Your task to perform on an android device: Open privacy settings Image 0: 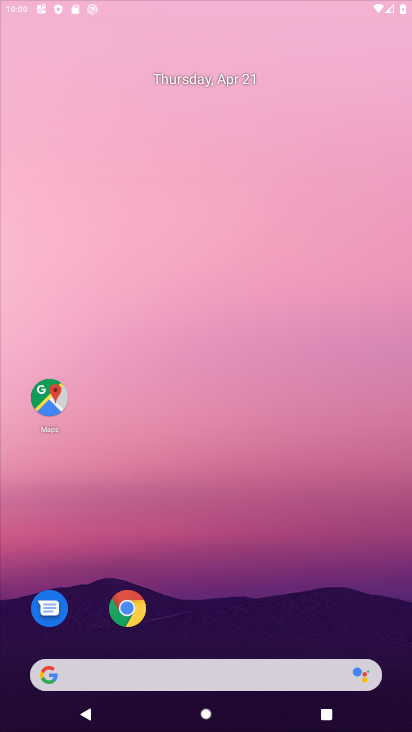
Step 0: click (133, 617)
Your task to perform on an android device: Open privacy settings Image 1: 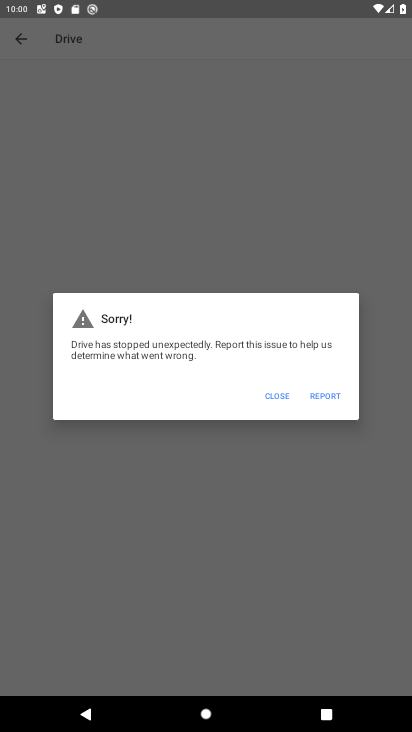
Step 1: press home button
Your task to perform on an android device: Open privacy settings Image 2: 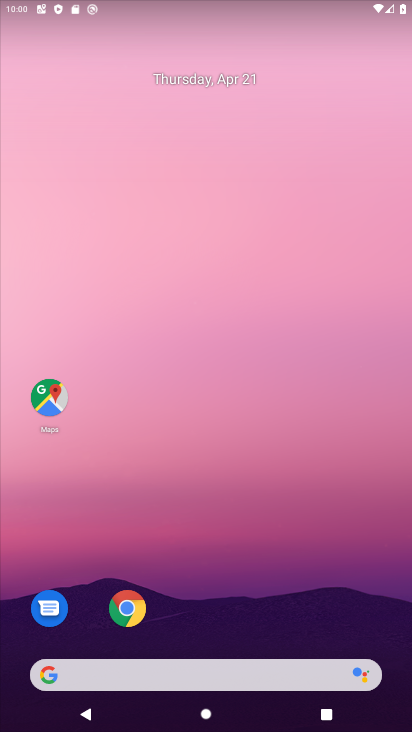
Step 2: drag from (239, 610) to (344, 156)
Your task to perform on an android device: Open privacy settings Image 3: 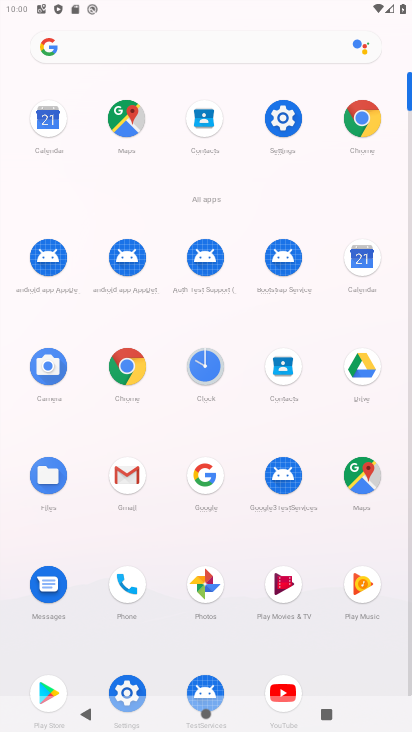
Step 3: click (280, 125)
Your task to perform on an android device: Open privacy settings Image 4: 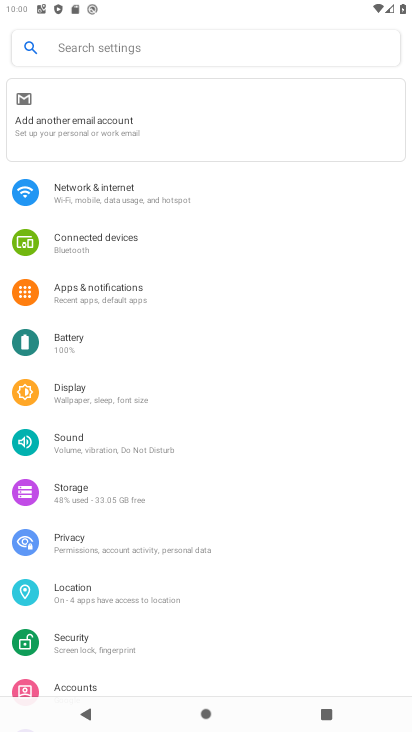
Step 4: click (128, 542)
Your task to perform on an android device: Open privacy settings Image 5: 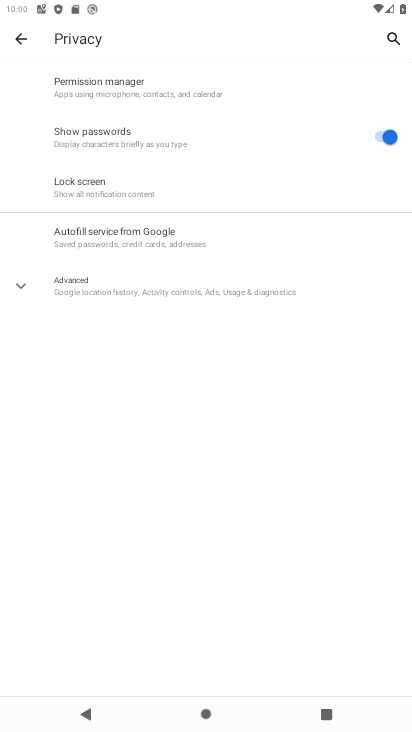
Step 5: task complete